Your task to perform on an android device: Empty the shopping cart on costco.com. Search for "razer blade" on costco.com, select the first entry, and add it to the cart. Image 0: 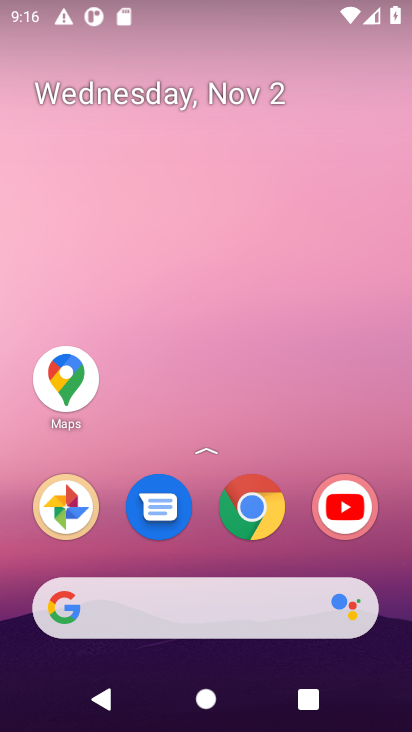
Step 0: click (208, 601)
Your task to perform on an android device: Empty the shopping cart on costco.com. Search for "razer blade" on costco.com, select the first entry, and add it to the cart. Image 1: 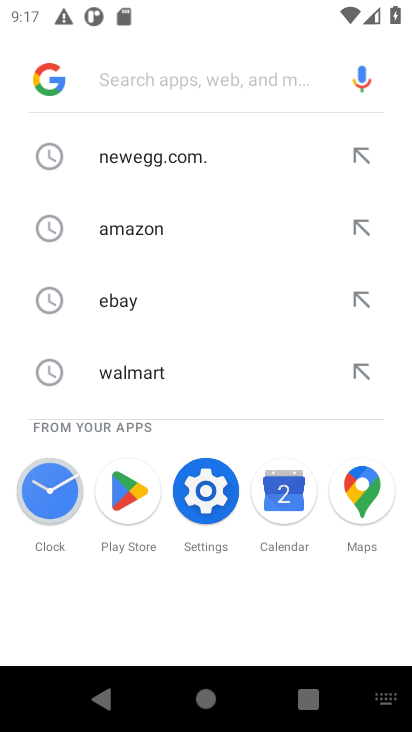
Step 1: type "costco.com"
Your task to perform on an android device: Empty the shopping cart on costco.com. Search for "razer blade" on costco.com, select the first entry, and add it to the cart. Image 2: 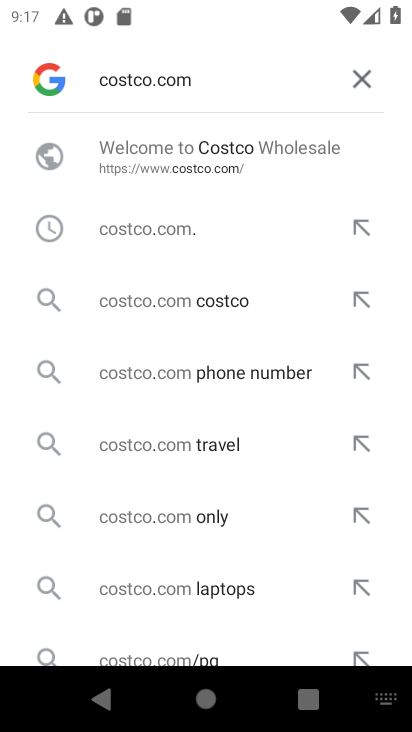
Step 2: click (175, 157)
Your task to perform on an android device: Empty the shopping cart on costco.com. Search for "razer blade" on costco.com, select the first entry, and add it to the cart. Image 3: 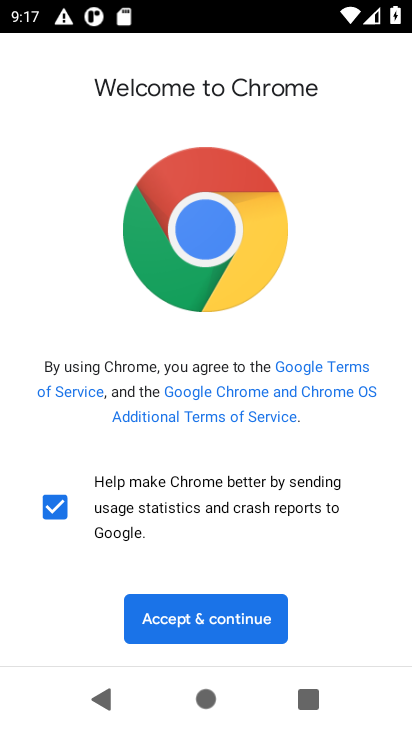
Step 3: click (173, 600)
Your task to perform on an android device: Empty the shopping cart on costco.com. Search for "razer blade" on costco.com, select the first entry, and add it to the cart. Image 4: 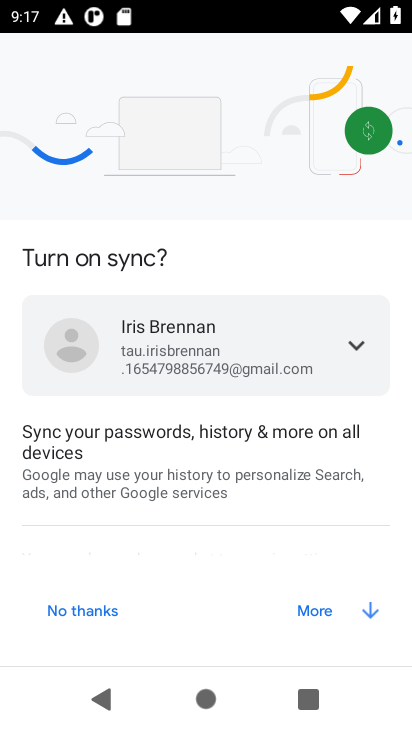
Step 4: click (300, 625)
Your task to perform on an android device: Empty the shopping cart on costco.com. Search for "razer blade" on costco.com, select the first entry, and add it to the cart. Image 5: 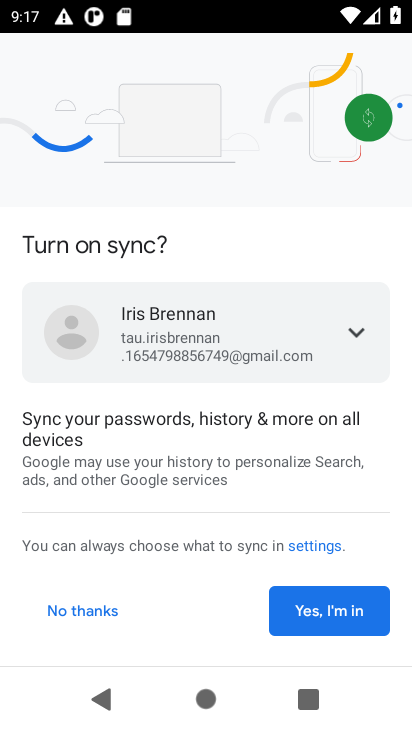
Step 5: click (300, 625)
Your task to perform on an android device: Empty the shopping cart on costco.com. Search for "razer blade" on costco.com, select the first entry, and add it to the cart. Image 6: 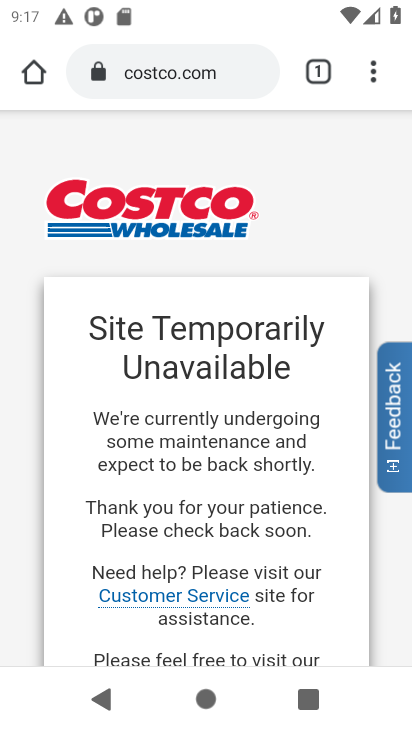
Step 6: task complete